Your task to perform on an android device: star an email in the gmail app Image 0: 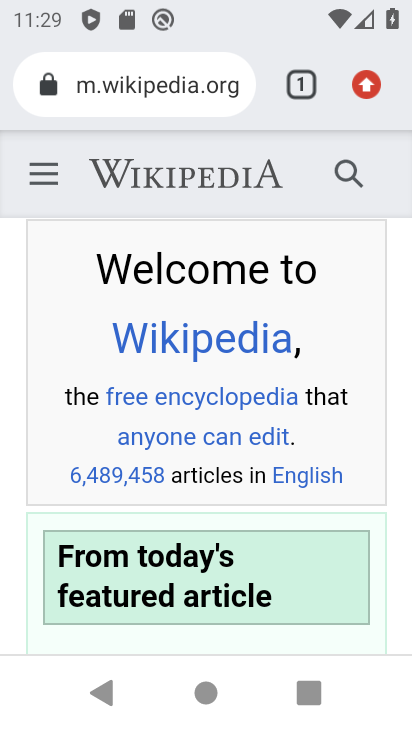
Step 0: press home button
Your task to perform on an android device: star an email in the gmail app Image 1: 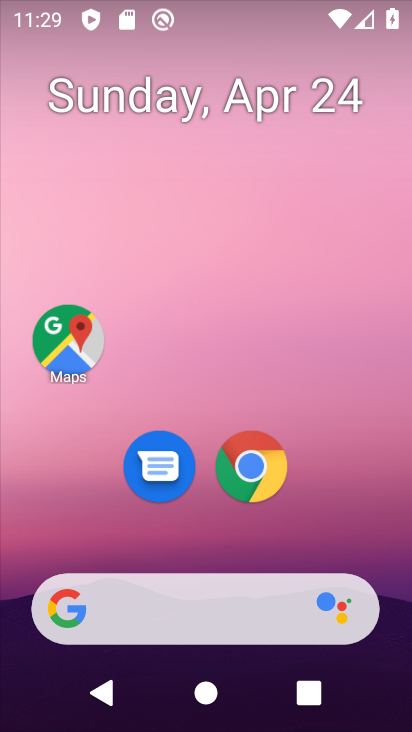
Step 1: drag from (368, 492) to (319, 232)
Your task to perform on an android device: star an email in the gmail app Image 2: 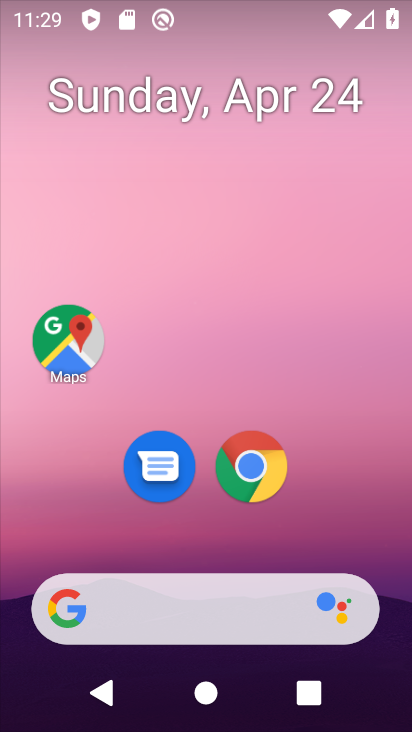
Step 2: drag from (336, 486) to (271, 52)
Your task to perform on an android device: star an email in the gmail app Image 3: 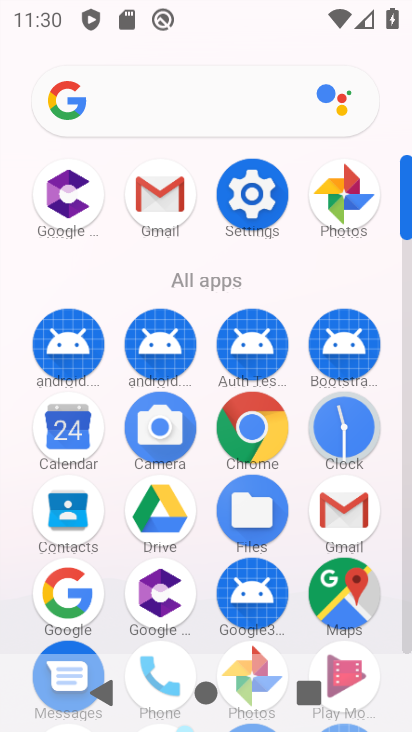
Step 3: click (164, 198)
Your task to perform on an android device: star an email in the gmail app Image 4: 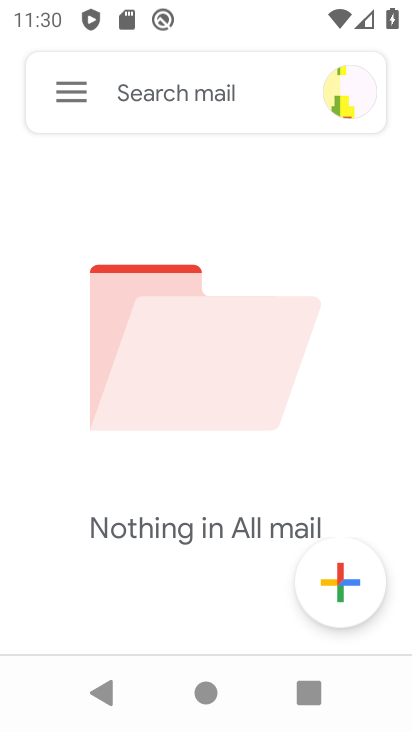
Step 4: click (56, 116)
Your task to perform on an android device: star an email in the gmail app Image 5: 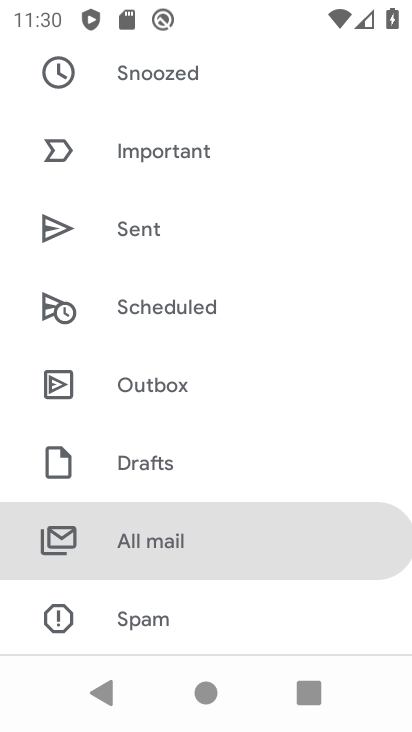
Step 5: task complete